Your task to perform on an android device: Search for Italian restaurants on Maps Image 0: 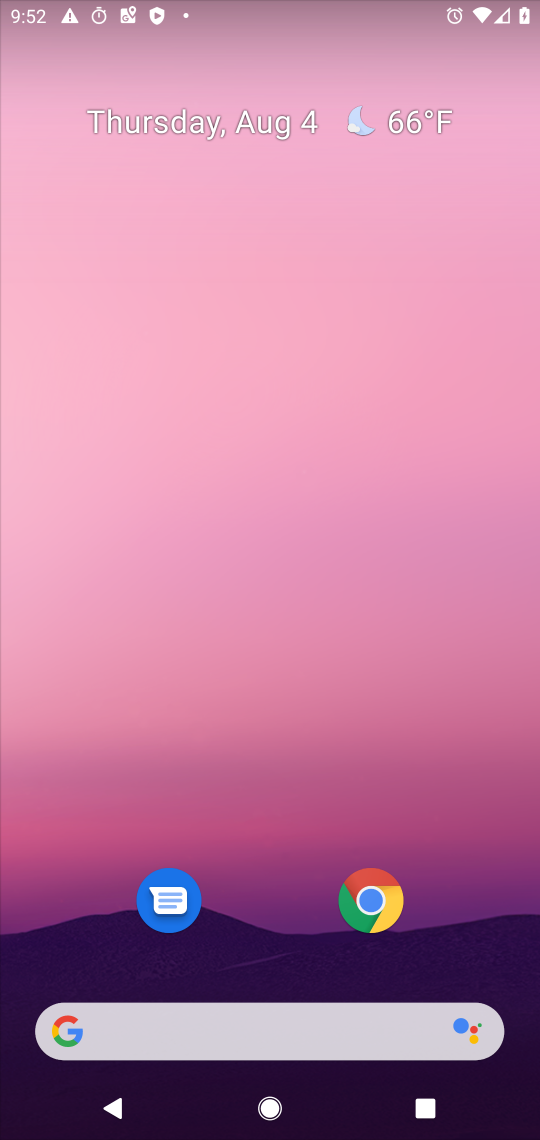
Step 0: drag from (301, 1032) to (469, 267)
Your task to perform on an android device: Search for Italian restaurants on Maps Image 1: 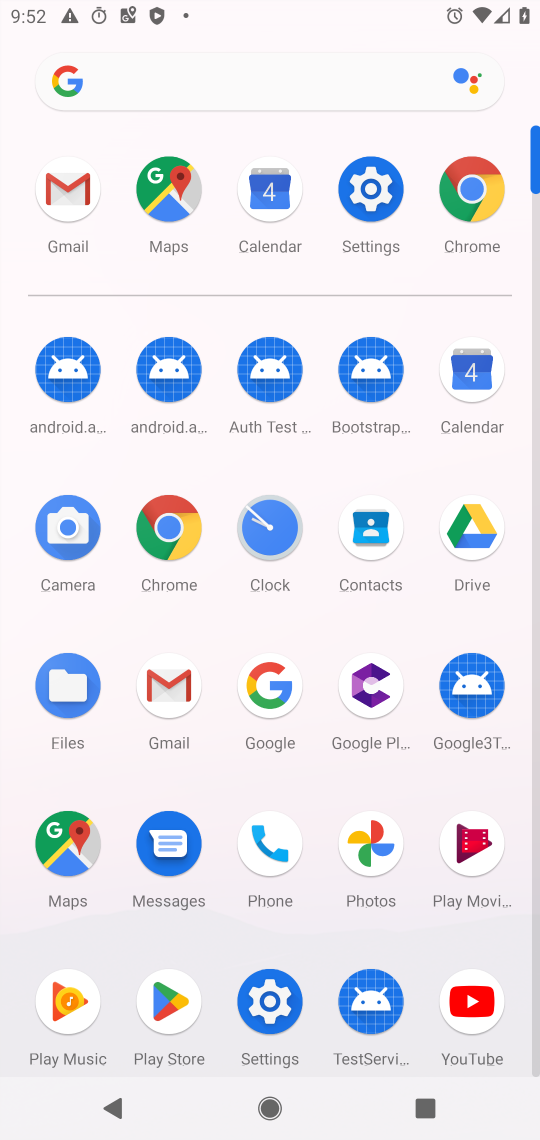
Step 1: click (174, 192)
Your task to perform on an android device: Search for Italian restaurants on Maps Image 2: 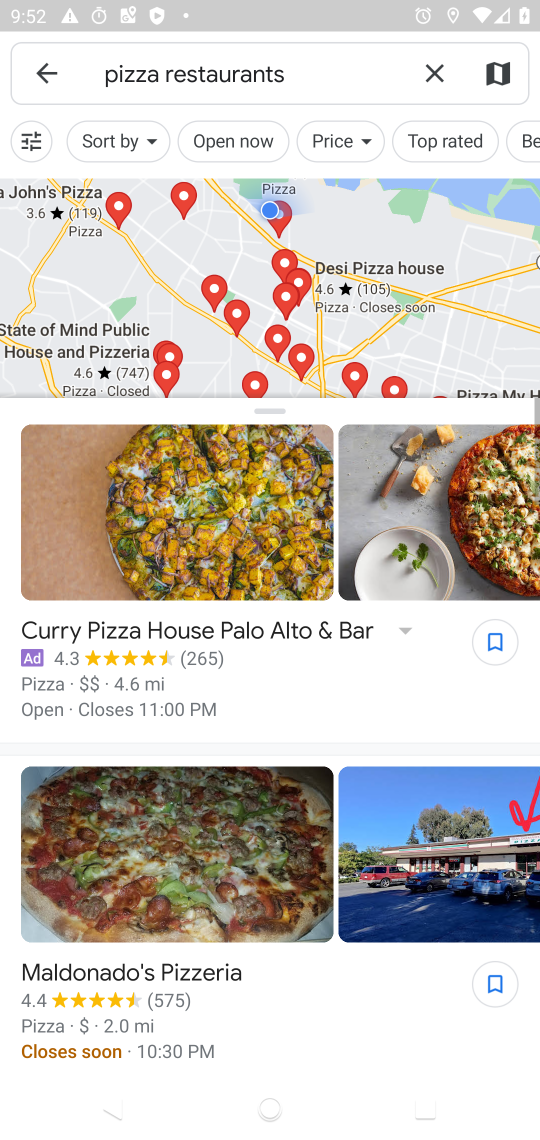
Step 2: click (438, 83)
Your task to perform on an android device: Search for Italian restaurants on Maps Image 3: 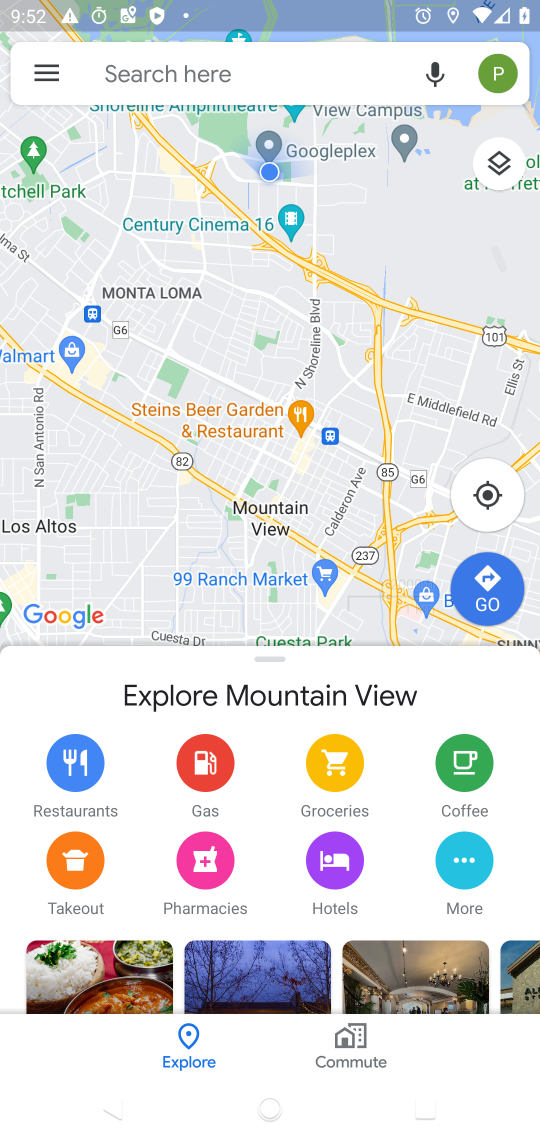
Step 3: click (290, 76)
Your task to perform on an android device: Search for Italian restaurants on Maps Image 4: 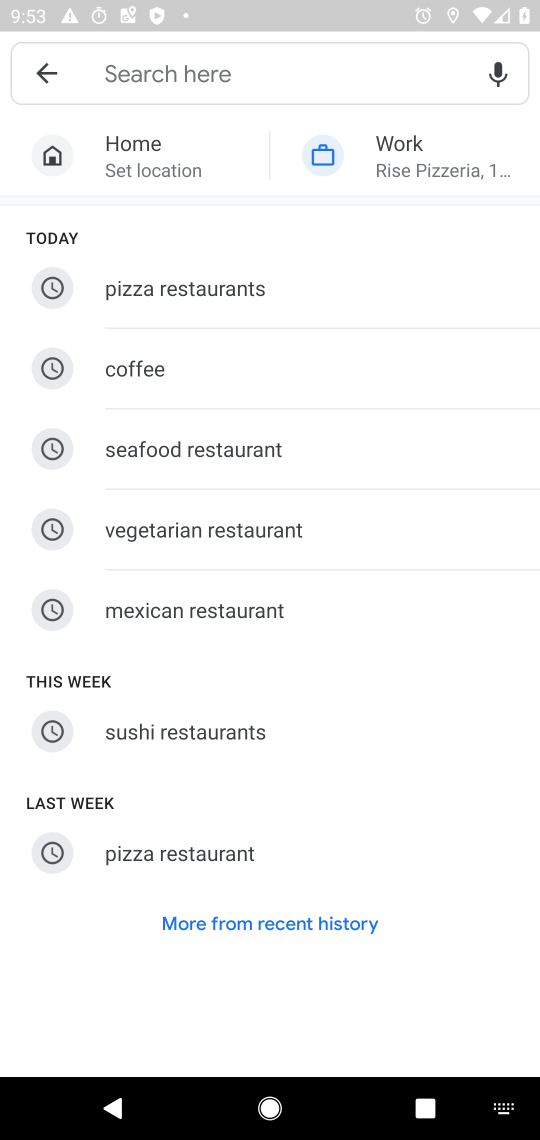
Step 4: type "Italian restaurants"
Your task to perform on an android device: Search for Italian restaurants on Maps Image 5: 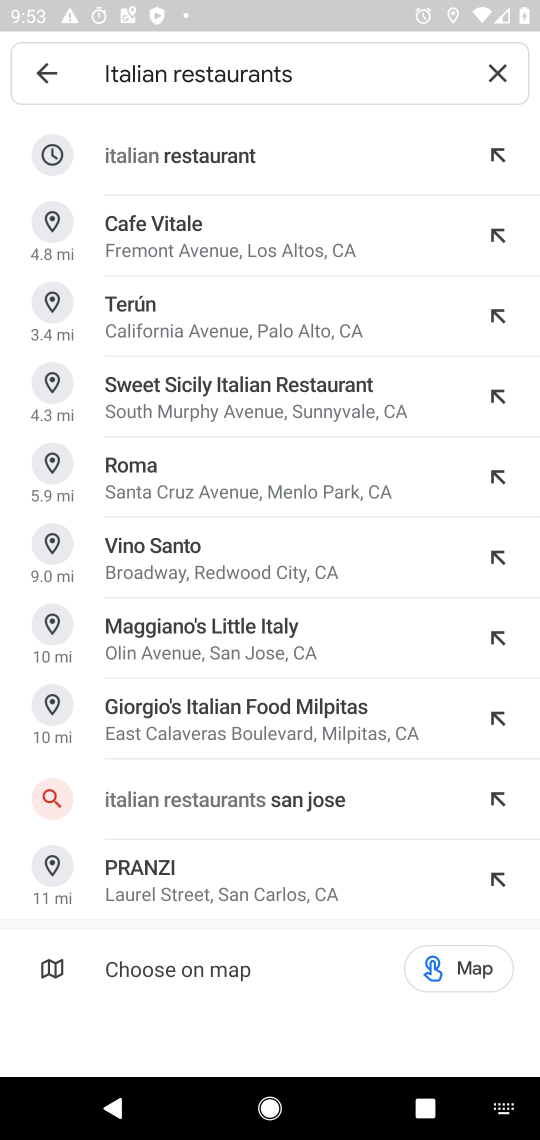
Step 5: click (189, 151)
Your task to perform on an android device: Search for Italian restaurants on Maps Image 6: 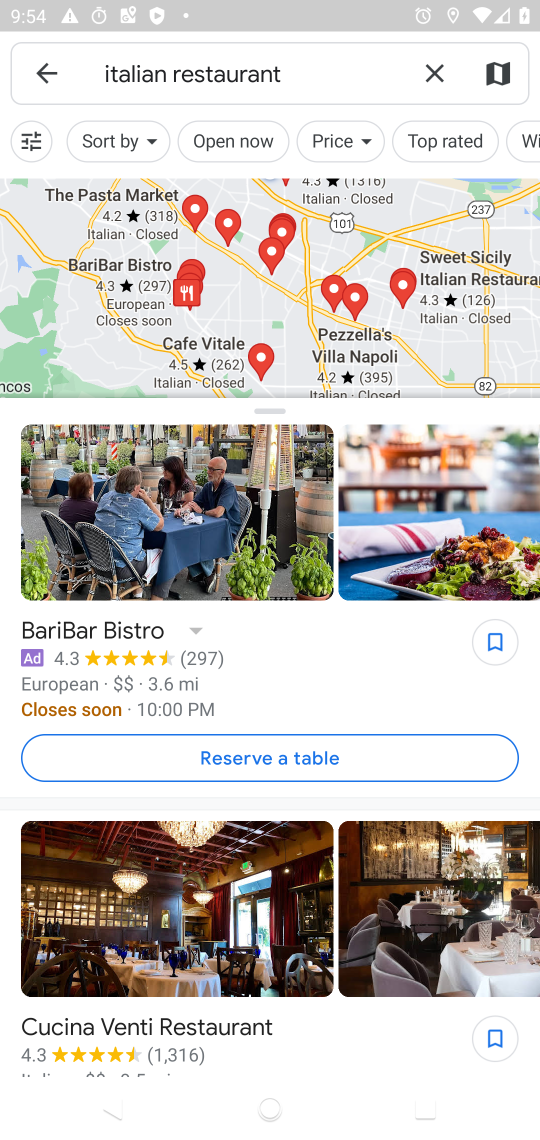
Step 6: task complete